Your task to perform on an android device: find snoozed emails in the gmail app Image 0: 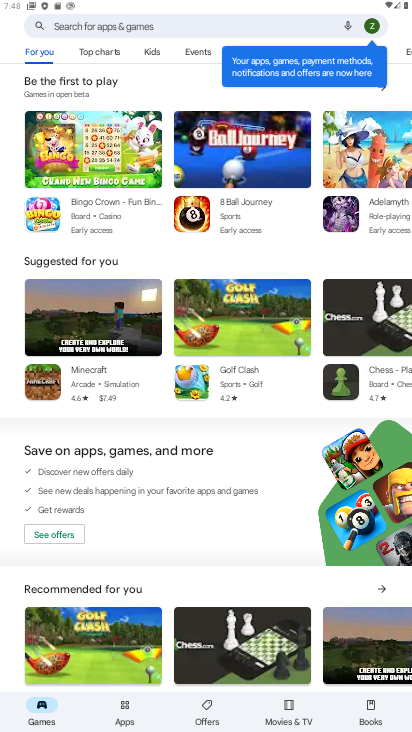
Step 0: press home button
Your task to perform on an android device: find snoozed emails in the gmail app Image 1: 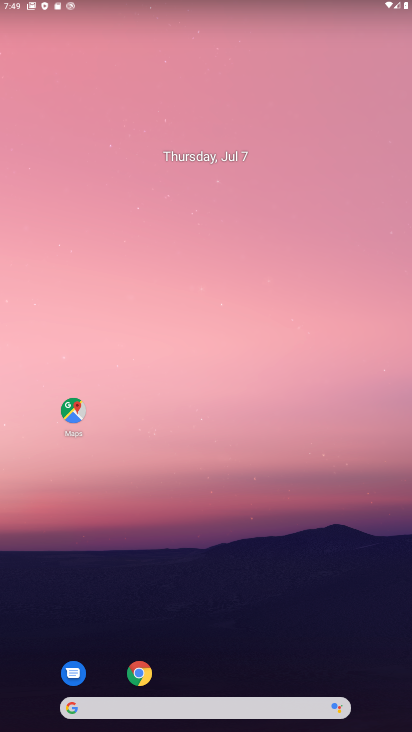
Step 1: drag from (215, 684) to (185, 84)
Your task to perform on an android device: find snoozed emails in the gmail app Image 2: 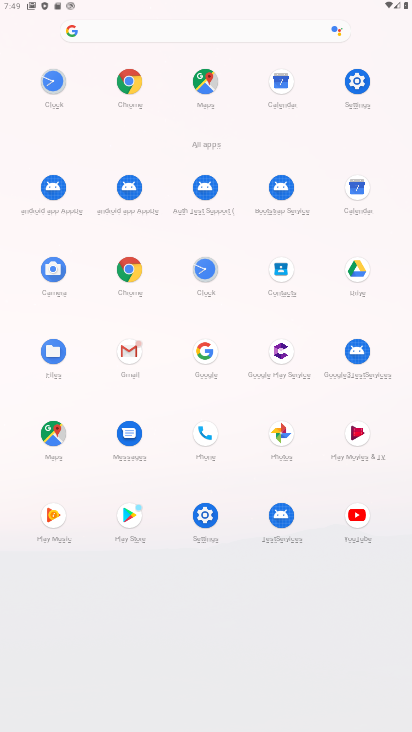
Step 2: click (126, 350)
Your task to perform on an android device: find snoozed emails in the gmail app Image 3: 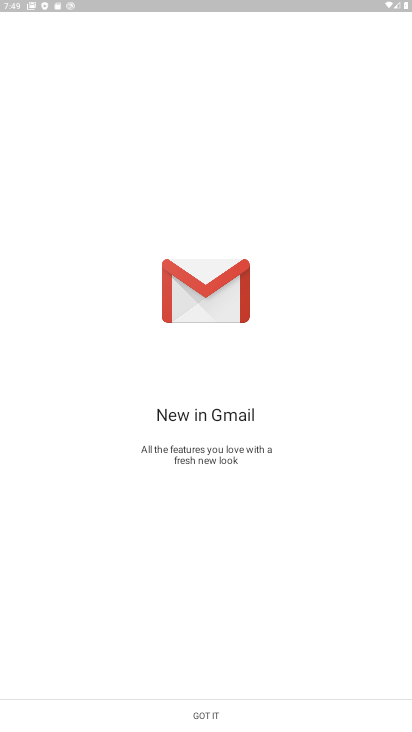
Step 3: click (219, 702)
Your task to perform on an android device: find snoozed emails in the gmail app Image 4: 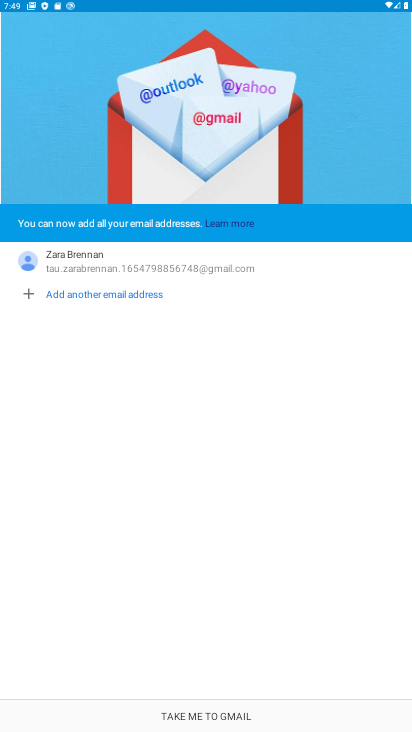
Step 4: click (204, 708)
Your task to perform on an android device: find snoozed emails in the gmail app Image 5: 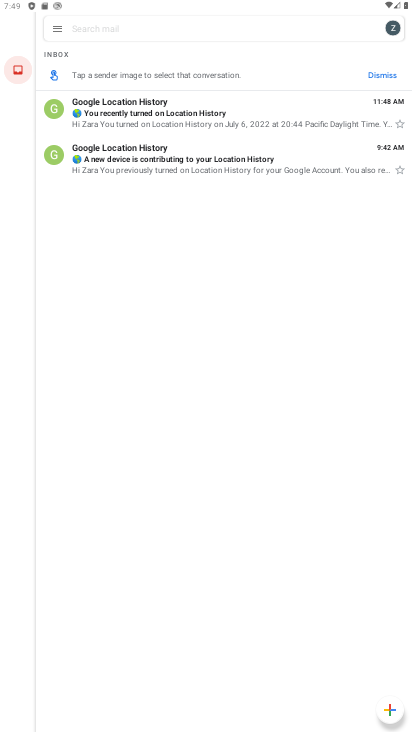
Step 5: click (54, 29)
Your task to perform on an android device: find snoozed emails in the gmail app Image 6: 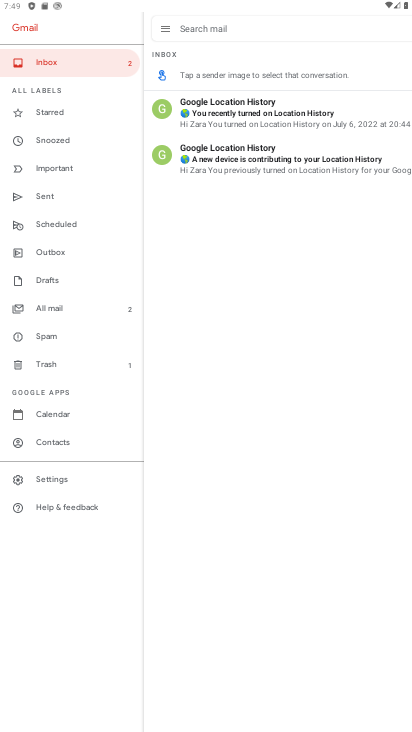
Step 6: click (44, 142)
Your task to perform on an android device: find snoozed emails in the gmail app Image 7: 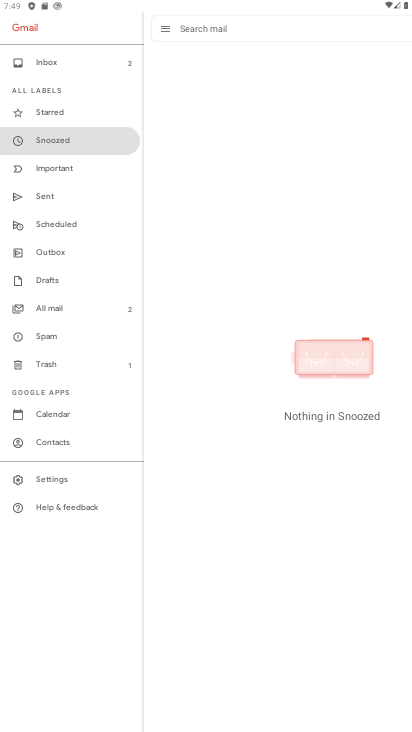
Step 7: task complete